Your task to perform on an android device: Check the weather Image 0: 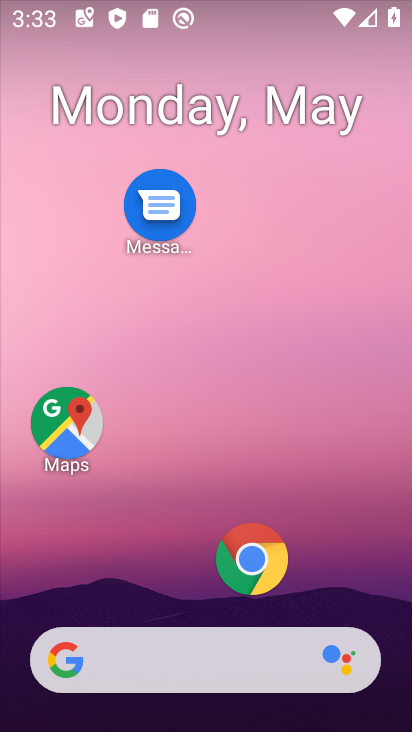
Step 0: click (247, 556)
Your task to perform on an android device: Check the weather Image 1: 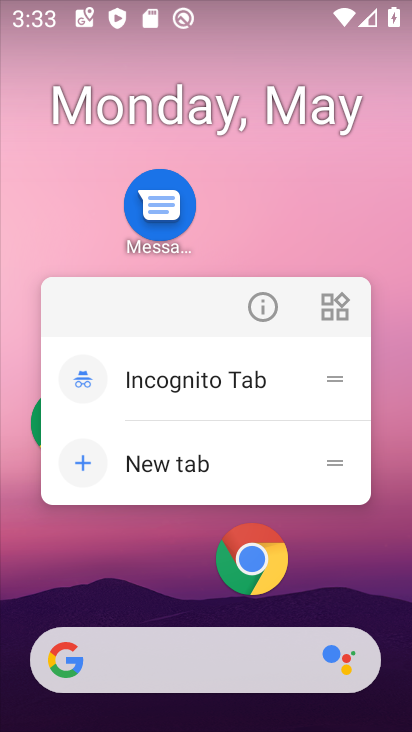
Step 1: click (246, 556)
Your task to perform on an android device: Check the weather Image 2: 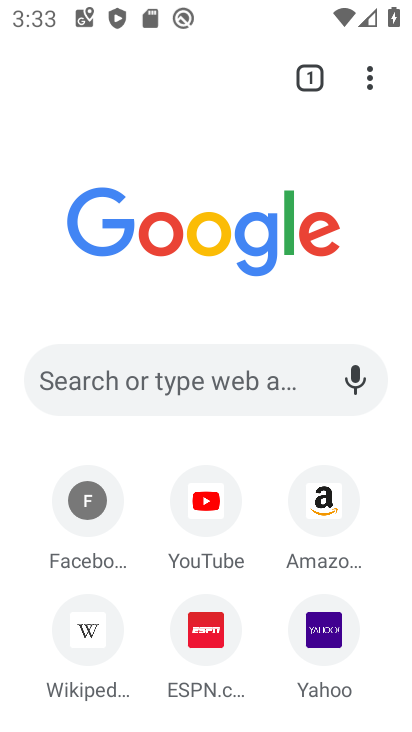
Step 2: click (90, 376)
Your task to perform on an android device: Check the weather Image 3: 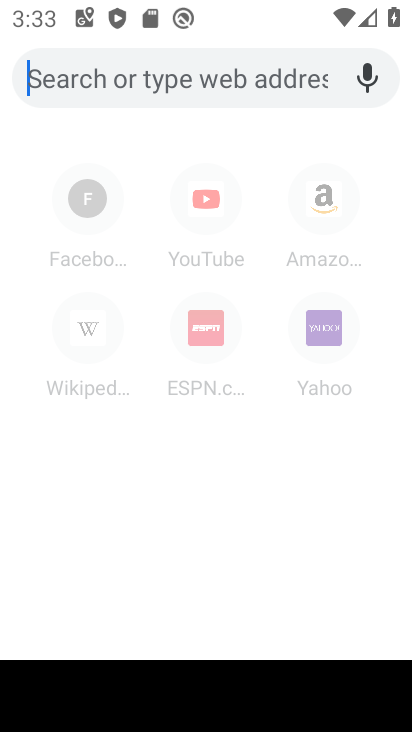
Step 3: type "weather"
Your task to perform on an android device: Check the weather Image 4: 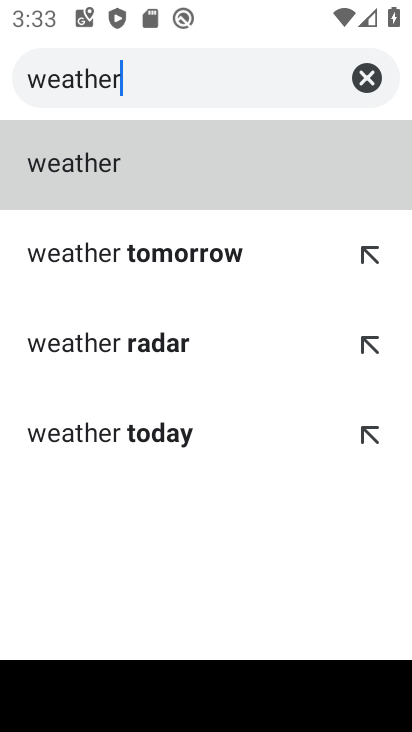
Step 4: click (62, 176)
Your task to perform on an android device: Check the weather Image 5: 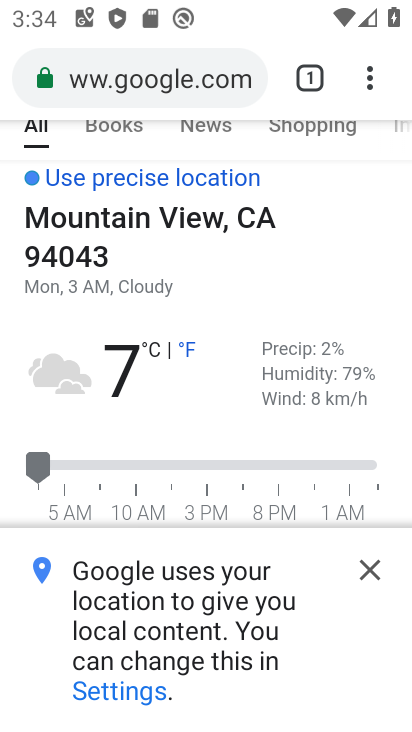
Step 5: task complete